Your task to perform on an android device: Go to display settings Image 0: 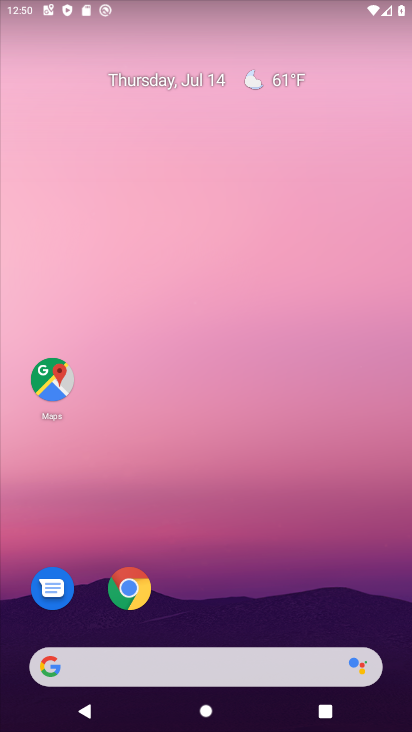
Step 0: drag from (247, 611) to (216, 278)
Your task to perform on an android device: Go to display settings Image 1: 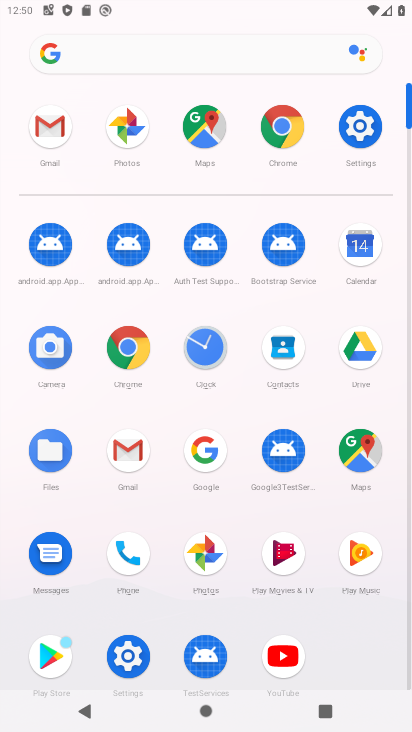
Step 1: click (351, 121)
Your task to perform on an android device: Go to display settings Image 2: 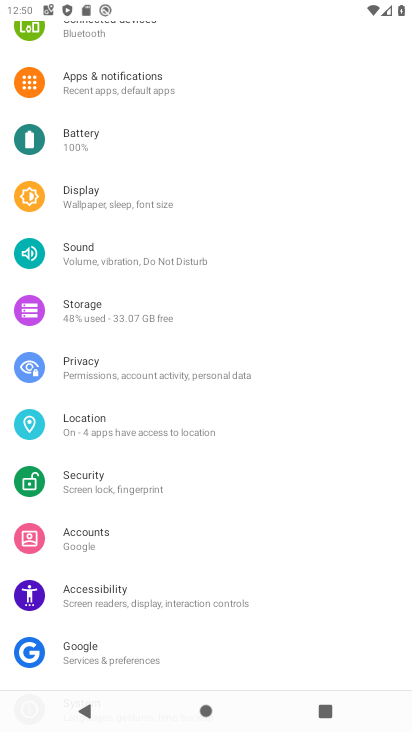
Step 2: click (88, 190)
Your task to perform on an android device: Go to display settings Image 3: 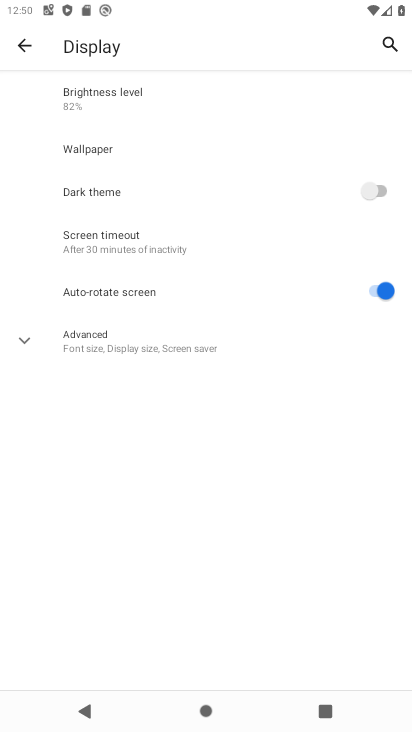
Step 3: task complete